Your task to perform on an android device: What's the latest video from GameSpot News? Image 0: 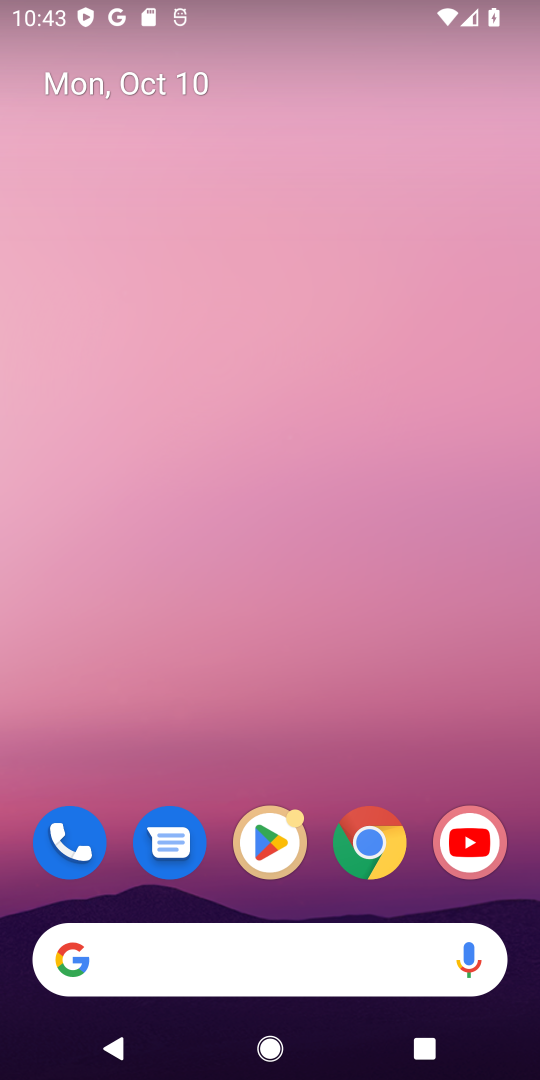
Step 0: click (481, 833)
Your task to perform on an android device: What's the latest video from GameSpot News? Image 1: 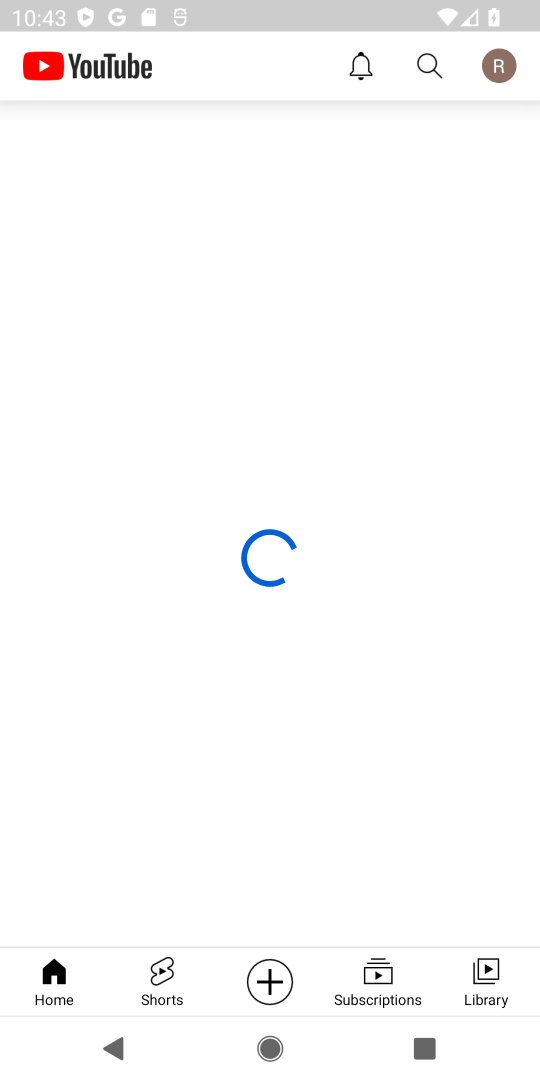
Step 1: click (442, 45)
Your task to perform on an android device: What's the latest video from GameSpot News? Image 2: 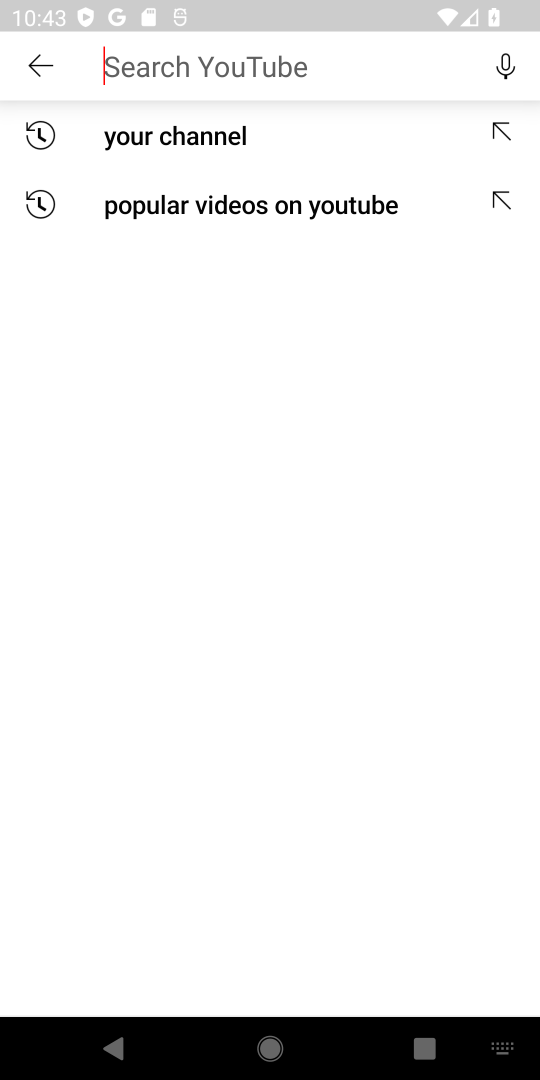
Step 2: click (193, 62)
Your task to perform on an android device: What's the latest video from GameSpot News? Image 3: 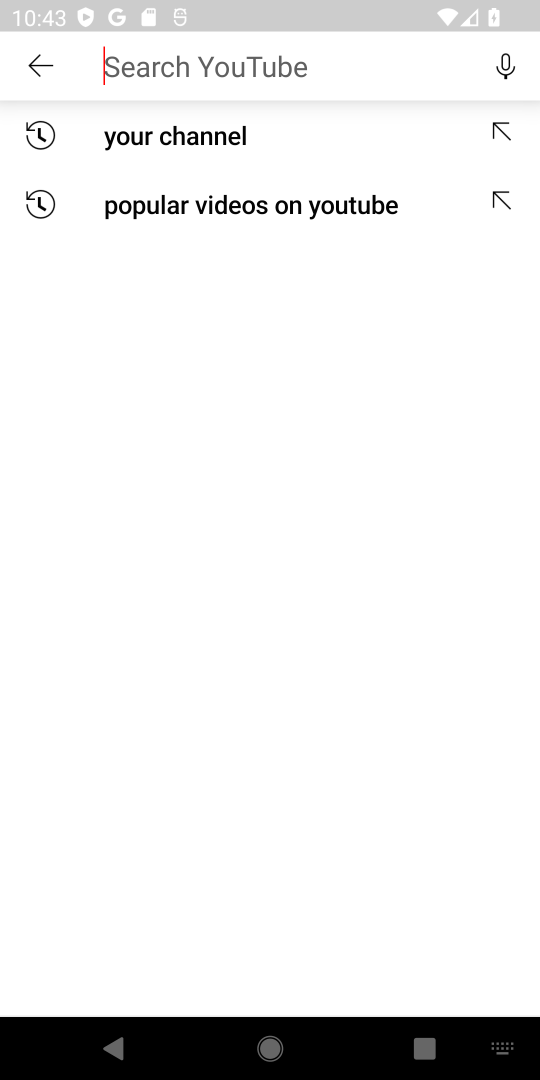
Step 3: type "GameSpot"
Your task to perform on an android device: What's the latest video from GameSpot News? Image 4: 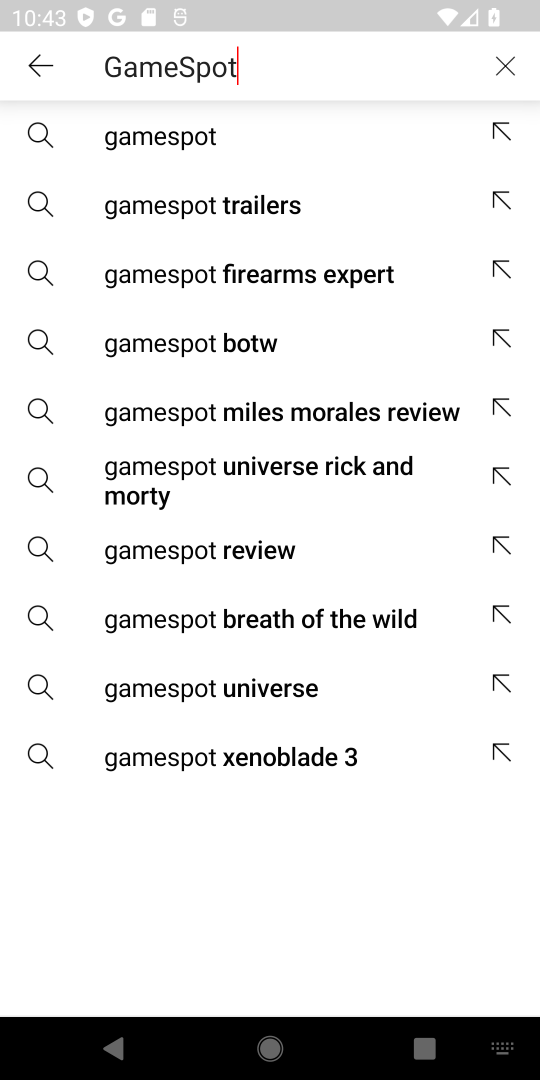
Step 4: click (156, 129)
Your task to perform on an android device: What's the latest video from GameSpot News? Image 5: 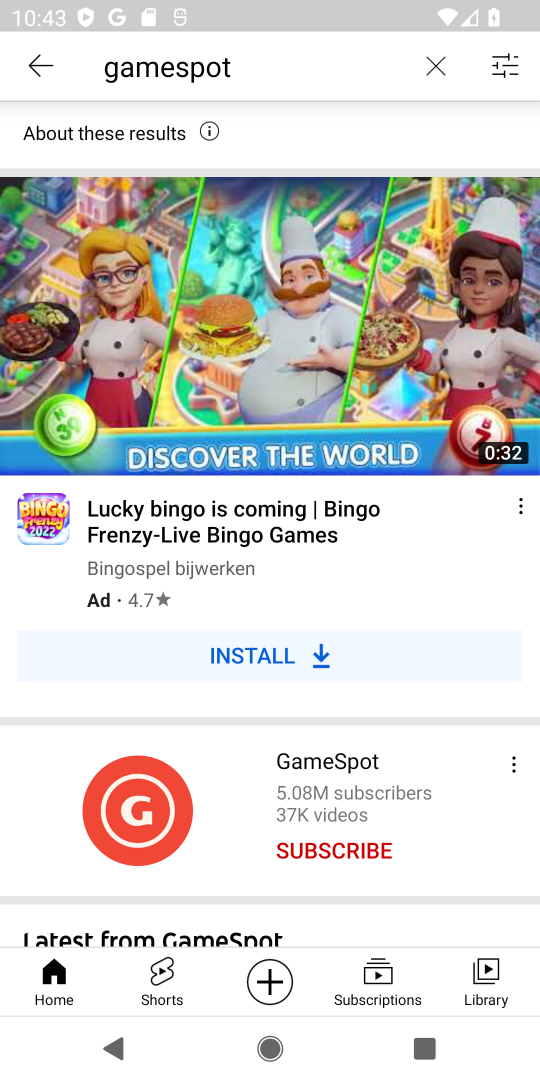
Step 5: drag from (229, 795) to (335, 349)
Your task to perform on an android device: What's the latest video from GameSpot News? Image 6: 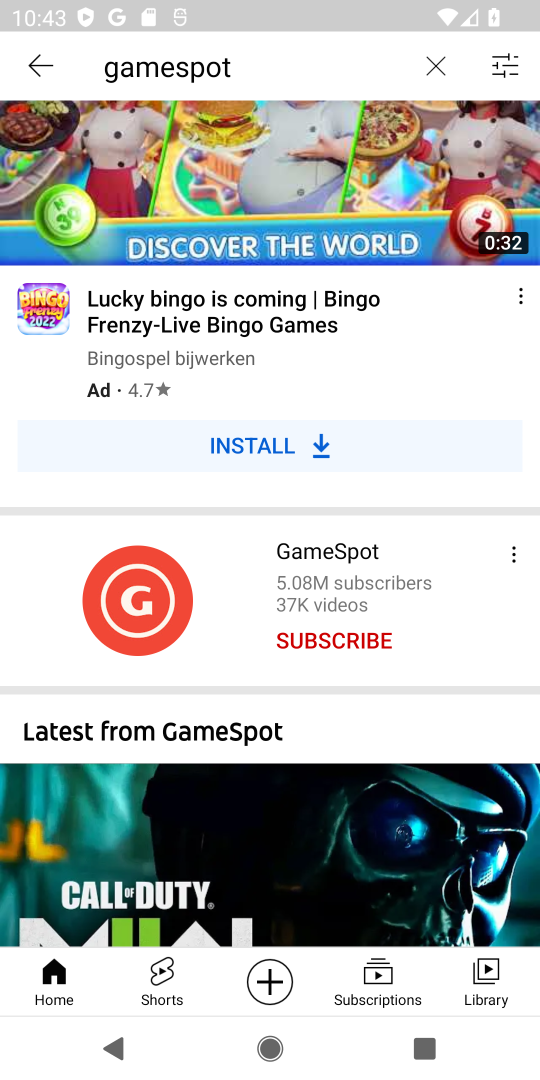
Step 6: click (309, 563)
Your task to perform on an android device: What's the latest video from GameSpot News? Image 7: 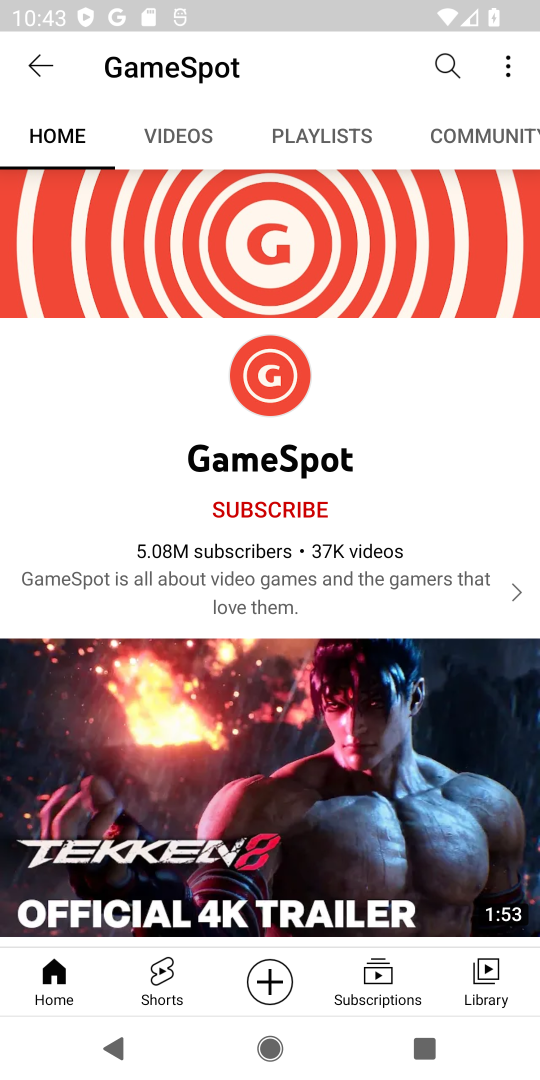
Step 7: drag from (258, 868) to (415, 265)
Your task to perform on an android device: What's the latest video from GameSpot News? Image 8: 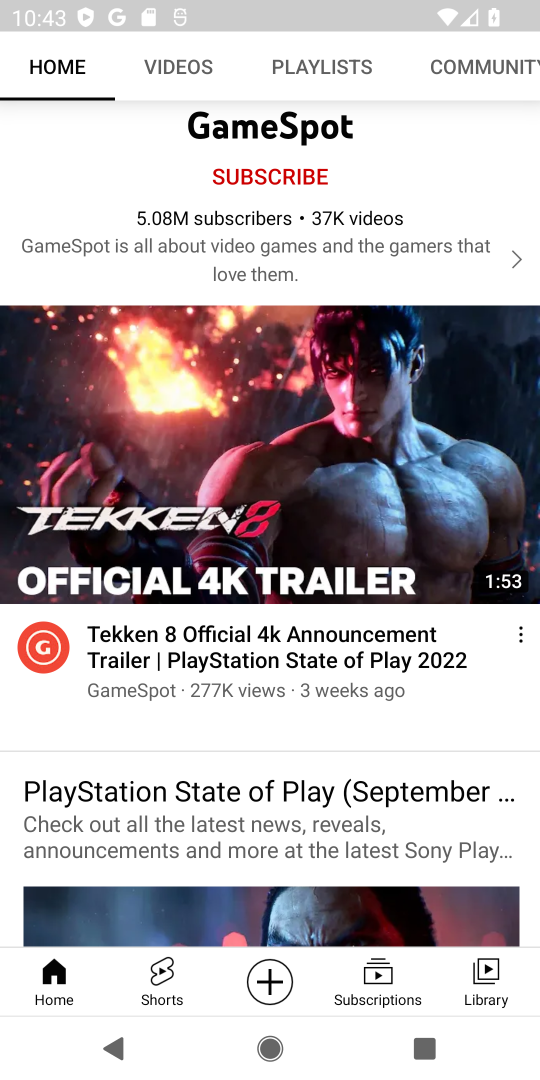
Step 8: click (315, 455)
Your task to perform on an android device: What's the latest video from GameSpot News? Image 9: 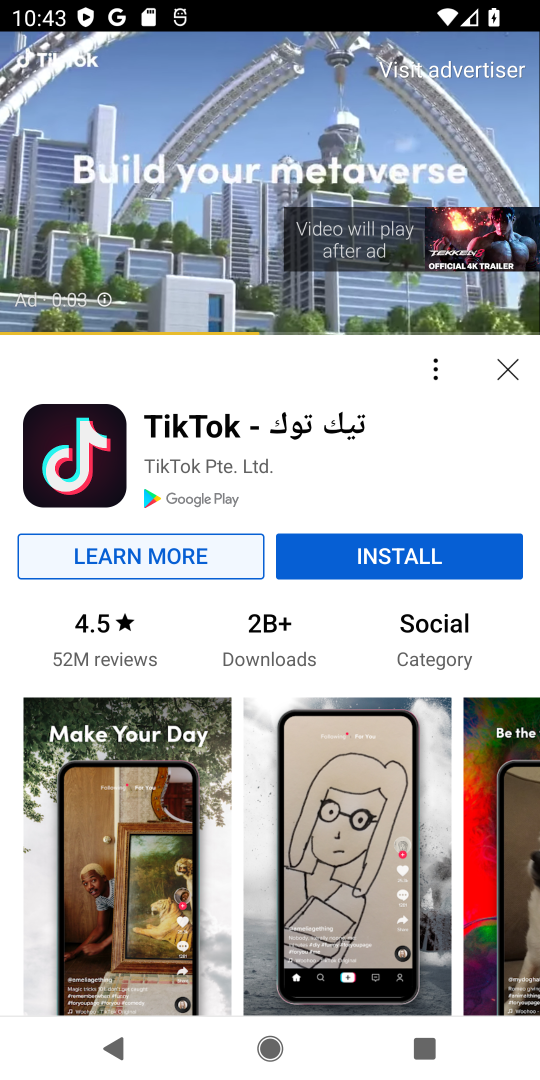
Step 9: task complete